Your task to perform on an android device: turn off smart reply in the gmail app Image 0: 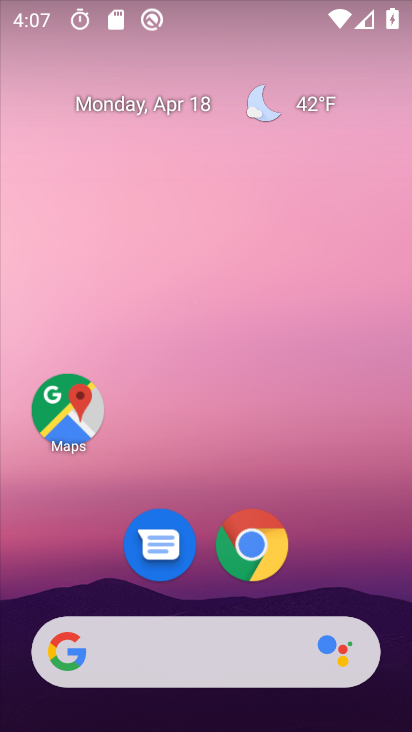
Step 0: drag from (321, 529) to (338, 136)
Your task to perform on an android device: turn off smart reply in the gmail app Image 1: 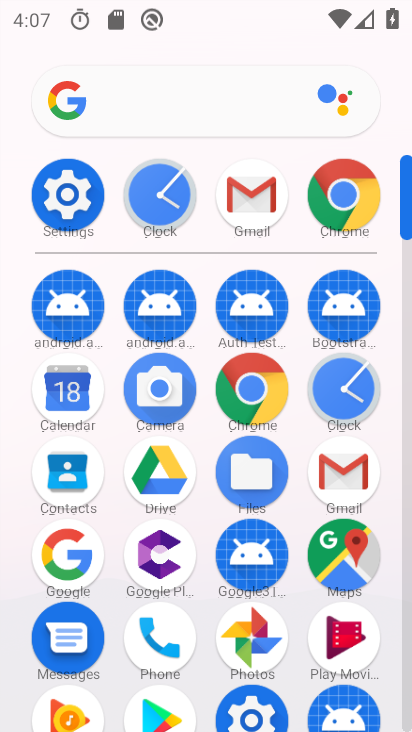
Step 1: click (343, 476)
Your task to perform on an android device: turn off smart reply in the gmail app Image 2: 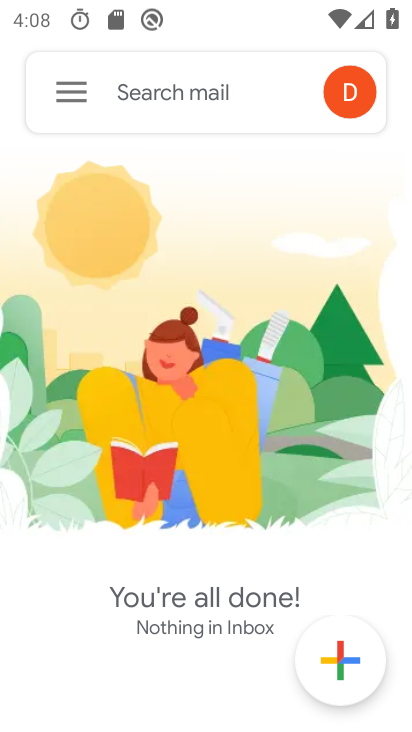
Step 2: click (61, 98)
Your task to perform on an android device: turn off smart reply in the gmail app Image 3: 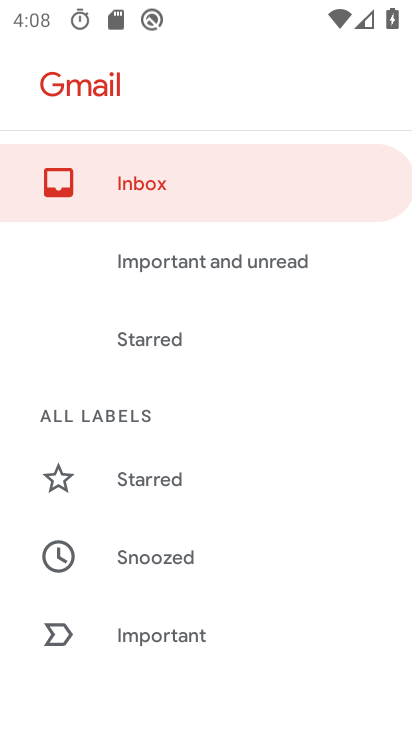
Step 3: drag from (318, 530) to (311, 380)
Your task to perform on an android device: turn off smart reply in the gmail app Image 4: 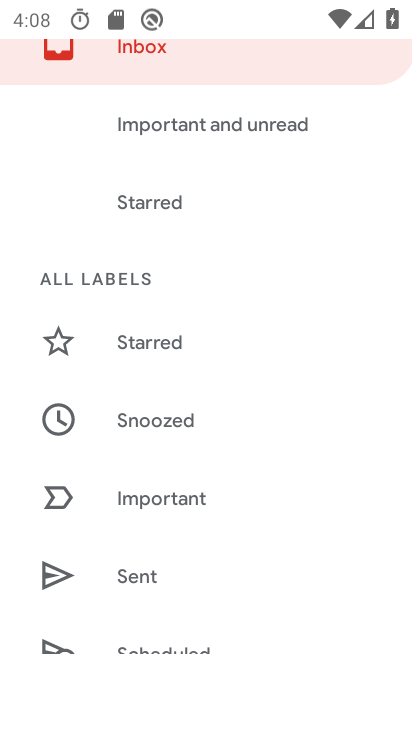
Step 4: drag from (343, 543) to (303, 341)
Your task to perform on an android device: turn off smart reply in the gmail app Image 5: 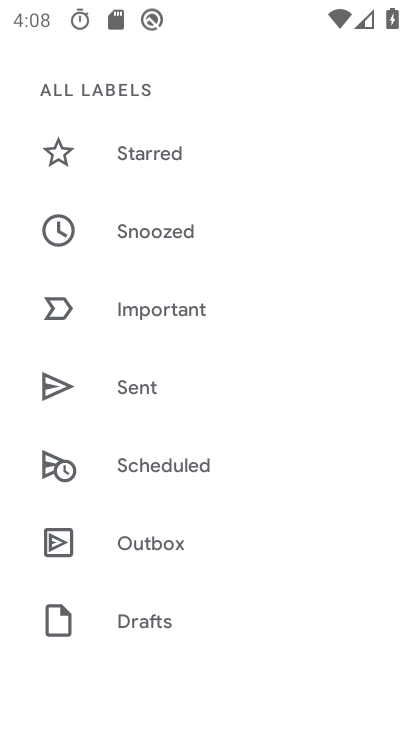
Step 5: drag from (334, 569) to (318, 292)
Your task to perform on an android device: turn off smart reply in the gmail app Image 6: 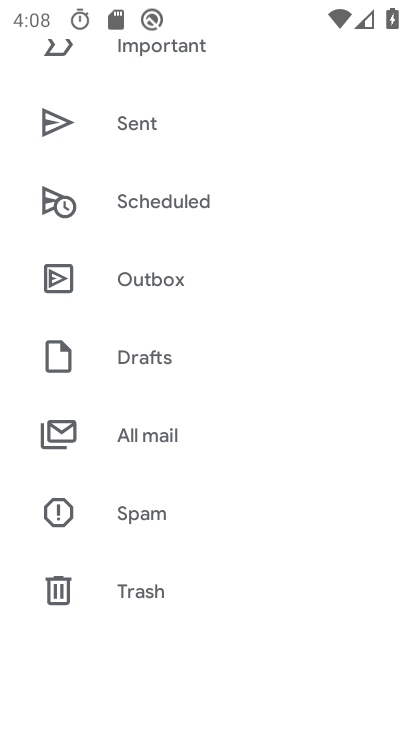
Step 6: drag from (319, 524) to (276, 289)
Your task to perform on an android device: turn off smart reply in the gmail app Image 7: 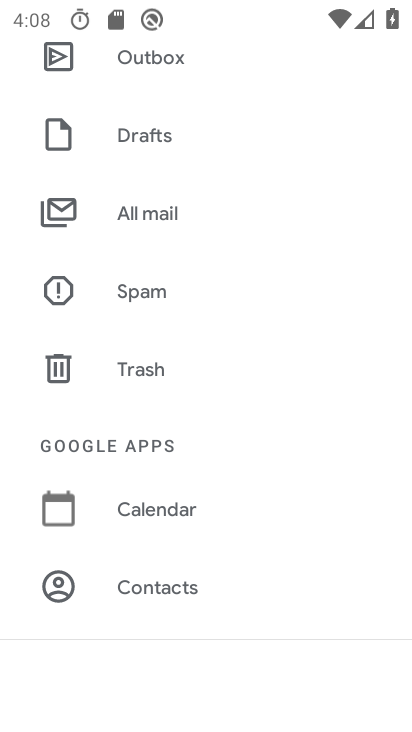
Step 7: drag from (308, 530) to (324, 322)
Your task to perform on an android device: turn off smart reply in the gmail app Image 8: 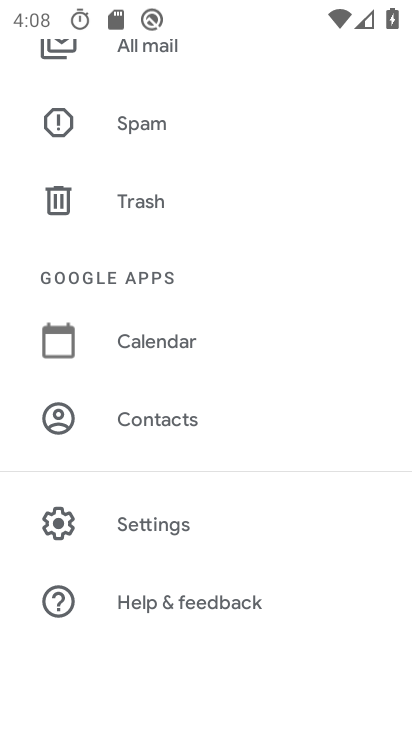
Step 8: click (185, 520)
Your task to perform on an android device: turn off smart reply in the gmail app Image 9: 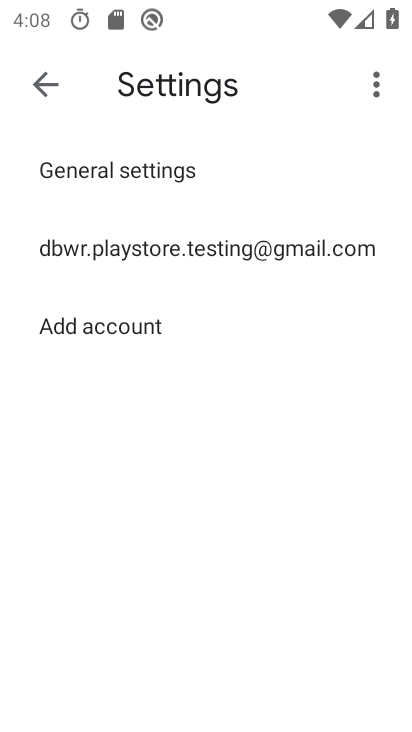
Step 9: click (284, 247)
Your task to perform on an android device: turn off smart reply in the gmail app Image 10: 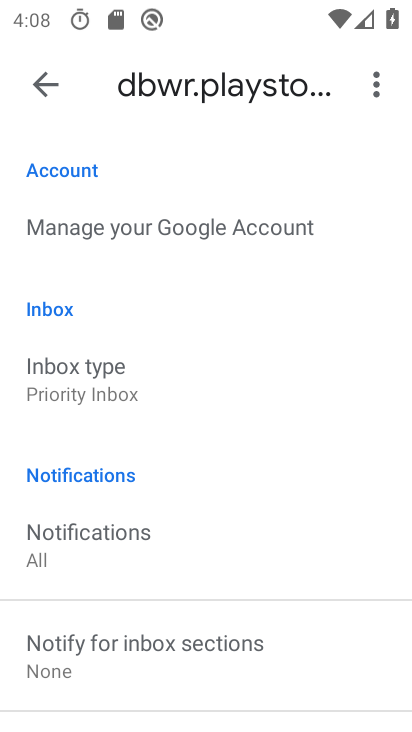
Step 10: drag from (350, 548) to (325, 323)
Your task to perform on an android device: turn off smart reply in the gmail app Image 11: 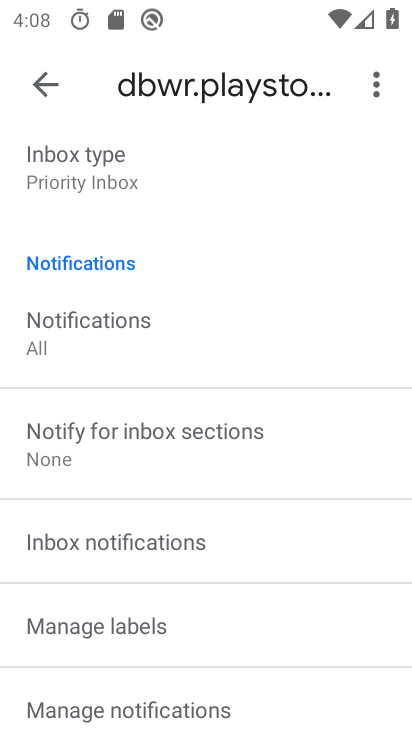
Step 11: drag from (352, 554) to (326, 357)
Your task to perform on an android device: turn off smart reply in the gmail app Image 12: 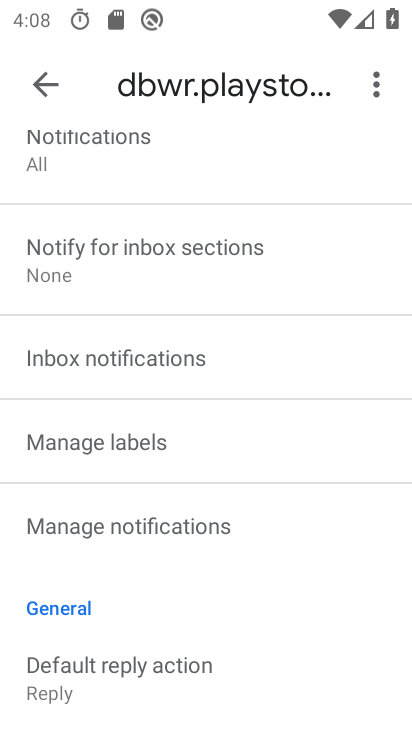
Step 12: drag from (299, 567) to (313, 367)
Your task to perform on an android device: turn off smart reply in the gmail app Image 13: 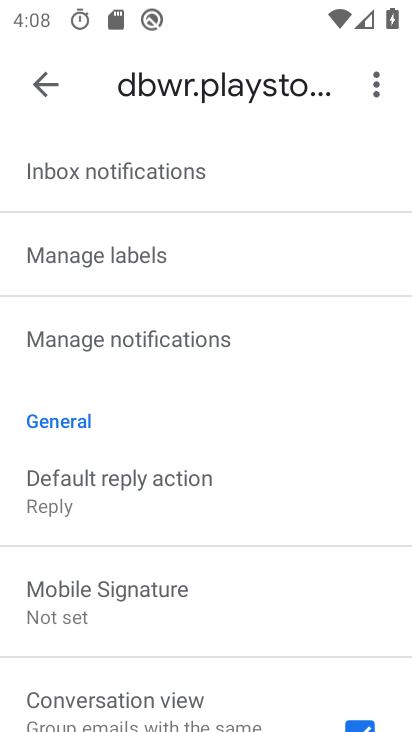
Step 13: drag from (289, 570) to (297, 341)
Your task to perform on an android device: turn off smart reply in the gmail app Image 14: 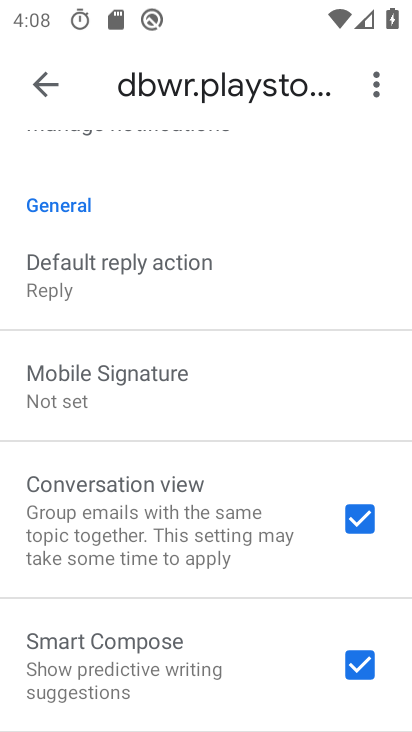
Step 14: drag from (277, 606) to (278, 353)
Your task to perform on an android device: turn off smart reply in the gmail app Image 15: 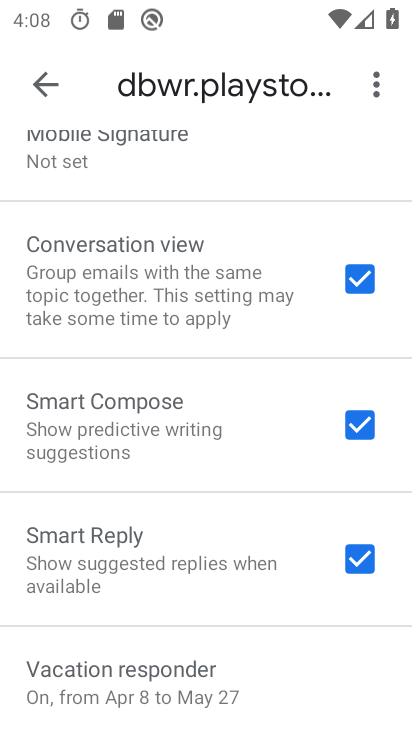
Step 15: click (357, 561)
Your task to perform on an android device: turn off smart reply in the gmail app Image 16: 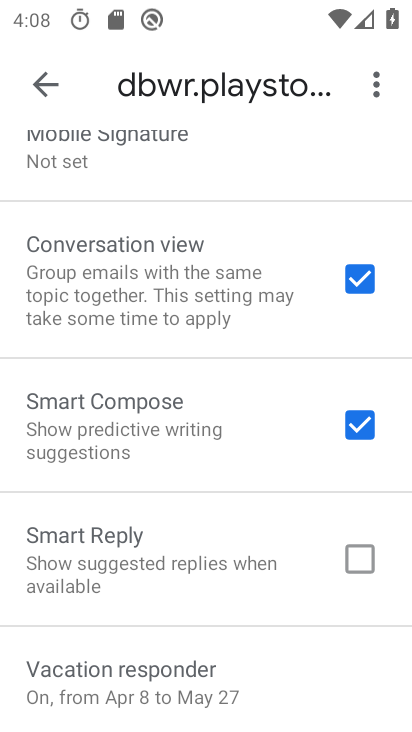
Step 16: task complete